Your task to perform on an android device: Go to battery settings Image 0: 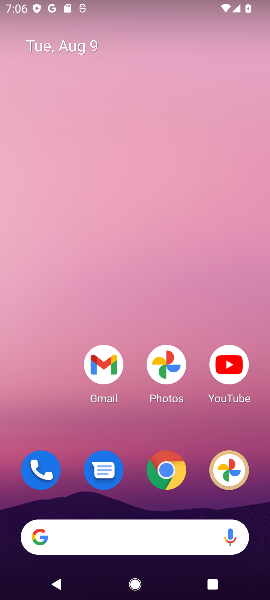
Step 0: drag from (130, 365) to (238, 71)
Your task to perform on an android device: Go to battery settings Image 1: 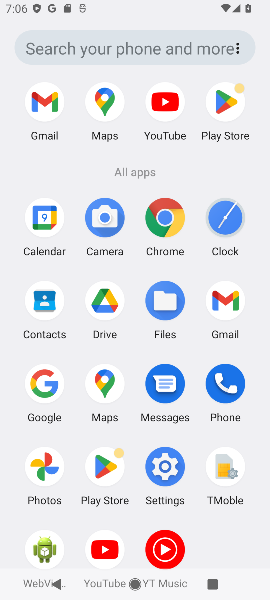
Step 1: click (179, 463)
Your task to perform on an android device: Go to battery settings Image 2: 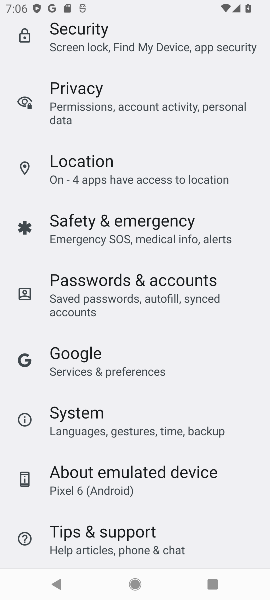
Step 2: drag from (206, 74) to (128, 491)
Your task to perform on an android device: Go to battery settings Image 3: 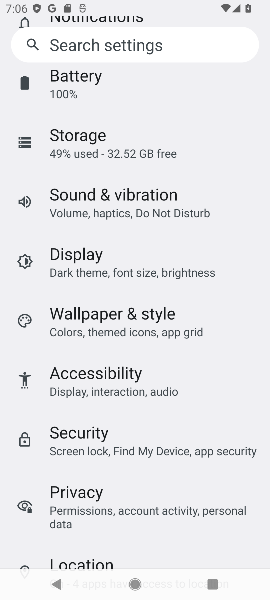
Step 3: click (116, 92)
Your task to perform on an android device: Go to battery settings Image 4: 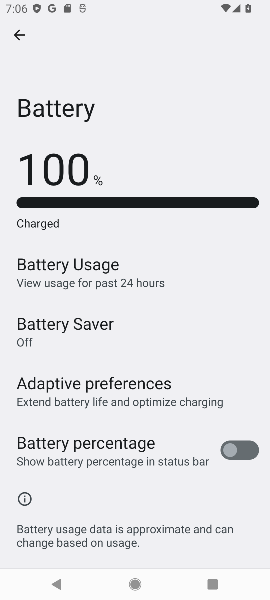
Step 4: task complete